Your task to perform on an android device: Open calendar and show me the first week of next month Image 0: 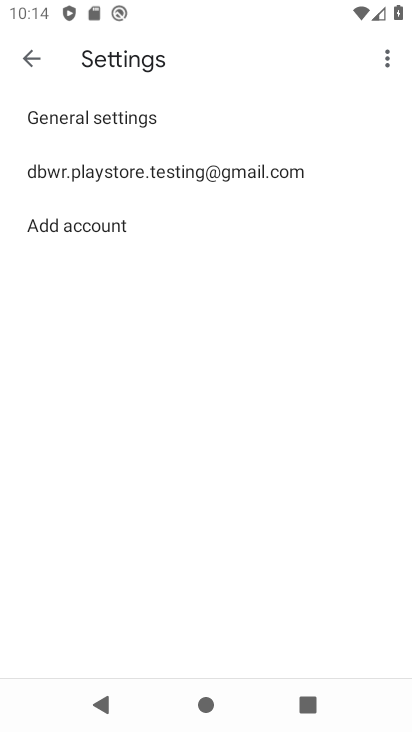
Step 0: press home button
Your task to perform on an android device: Open calendar and show me the first week of next month Image 1: 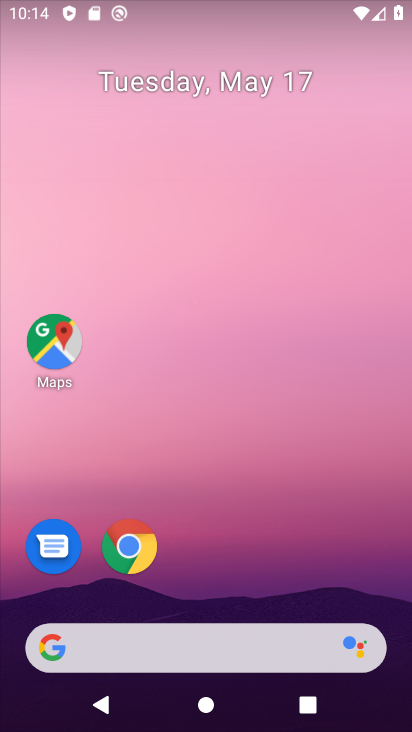
Step 1: drag from (224, 575) to (278, 1)
Your task to perform on an android device: Open calendar and show me the first week of next month Image 2: 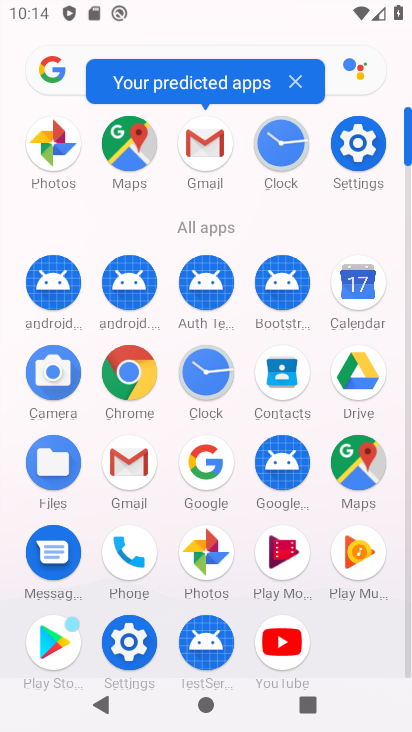
Step 2: click (355, 301)
Your task to perform on an android device: Open calendar and show me the first week of next month Image 3: 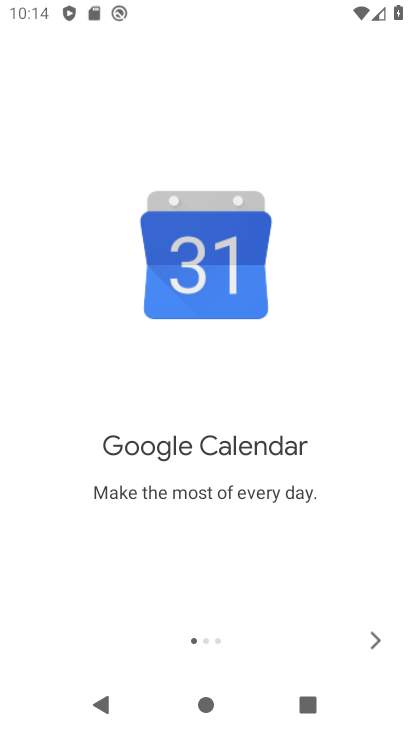
Step 3: click (372, 637)
Your task to perform on an android device: Open calendar and show me the first week of next month Image 4: 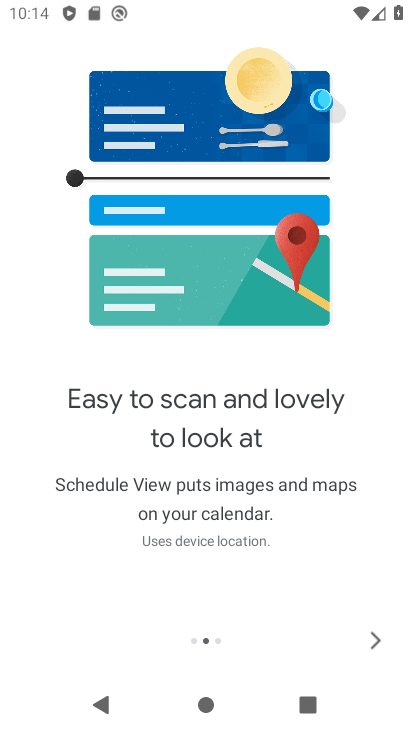
Step 4: click (378, 642)
Your task to perform on an android device: Open calendar and show me the first week of next month Image 5: 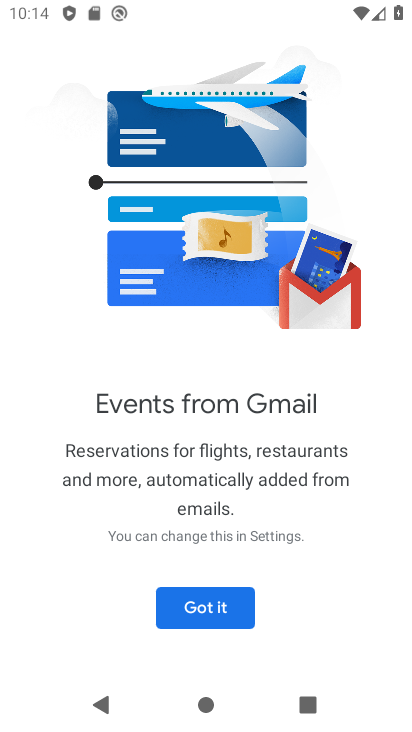
Step 5: click (243, 610)
Your task to perform on an android device: Open calendar and show me the first week of next month Image 6: 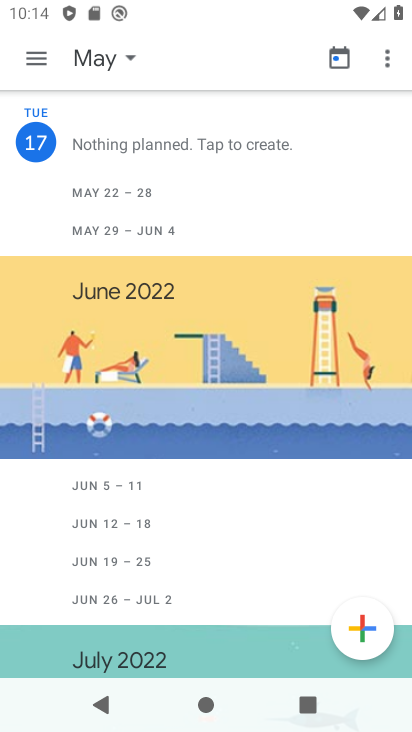
Step 6: click (41, 56)
Your task to perform on an android device: Open calendar and show me the first week of next month Image 7: 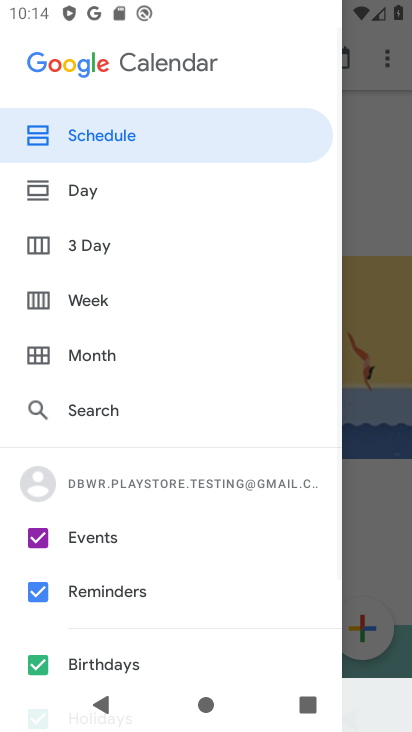
Step 7: click (134, 308)
Your task to perform on an android device: Open calendar and show me the first week of next month Image 8: 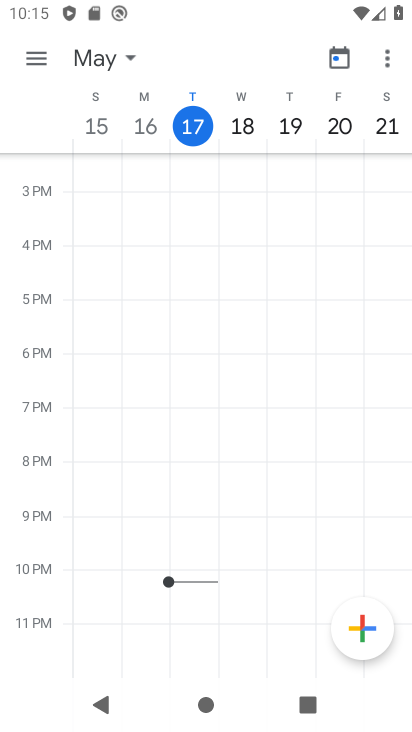
Step 8: task complete